Your task to perform on an android device: check storage Image 0: 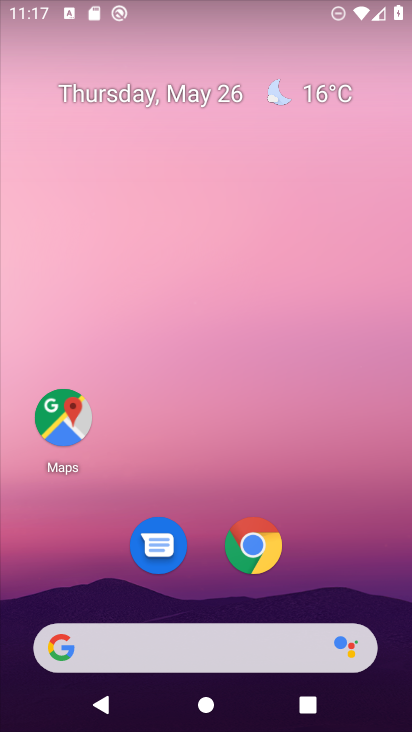
Step 0: press home button
Your task to perform on an android device: check storage Image 1: 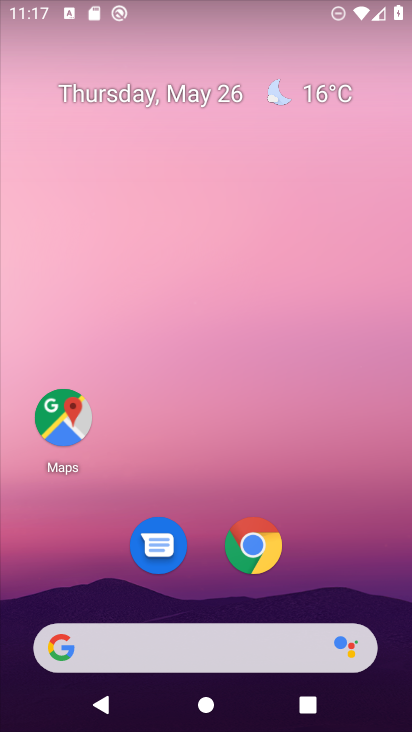
Step 1: drag from (305, 621) to (244, 152)
Your task to perform on an android device: check storage Image 2: 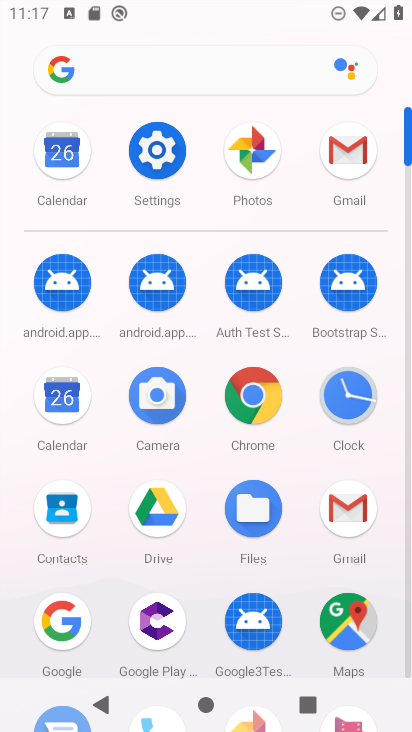
Step 2: click (149, 159)
Your task to perform on an android device: check storage Image 3: 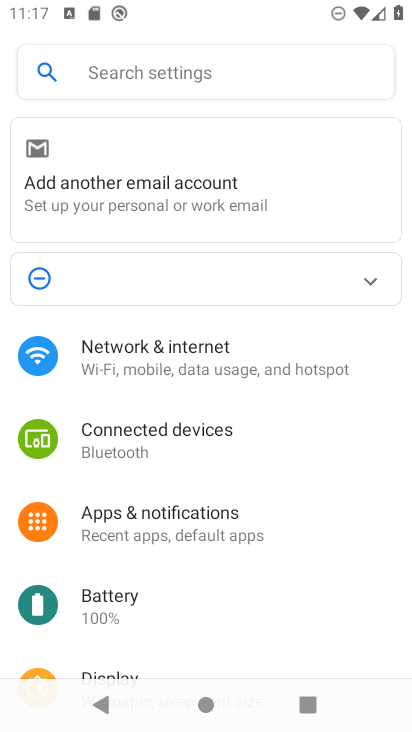
Step 3: drag from (228, 609) to (205, 214)
Your task to perform on an android device: check storage Image 4: 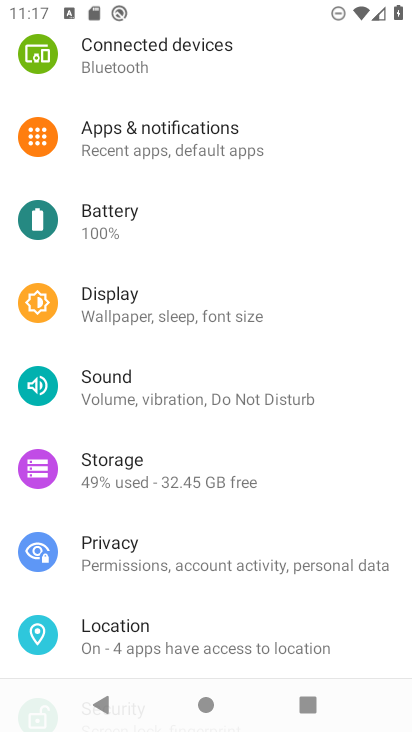
Step 4: click (143, 475)
Your task to perform on an android device: check storage Image 5: 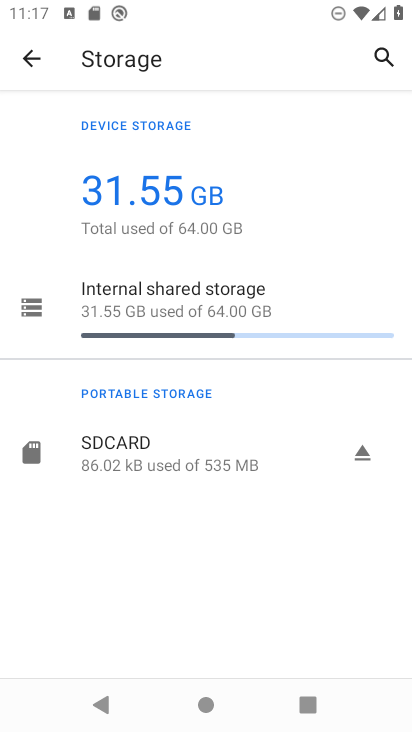
Step 5: task complete